Your task to perform on an android device: Open battery settings Image 0: 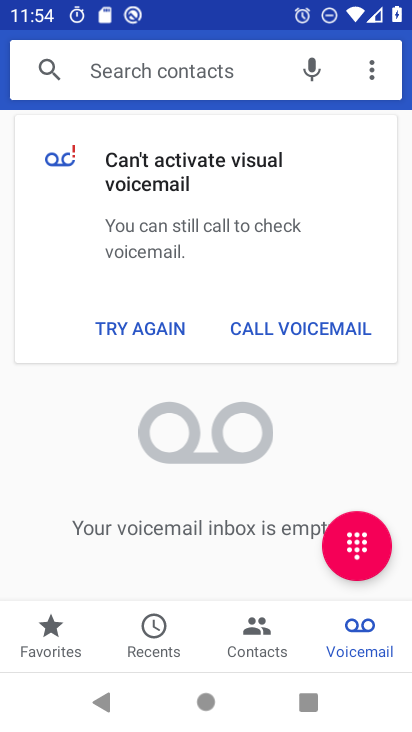
Step 0: press home button
Your task to perform on an android device: Open battery settings Image 1: 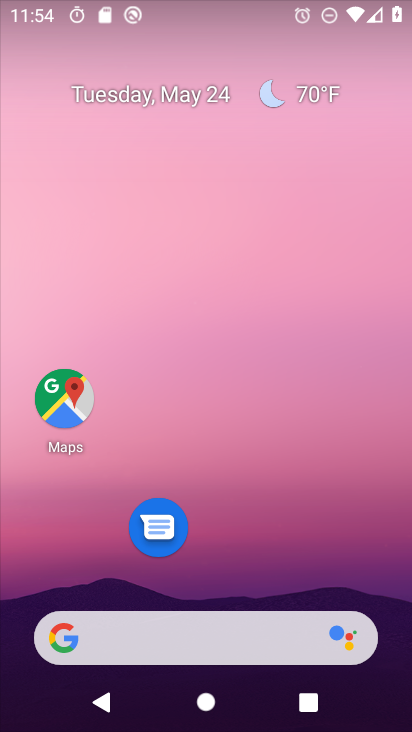
Step 1: drag from (254, 567) to (287, 55)
Your task to perform on an android device: Open battery settings Image 2: 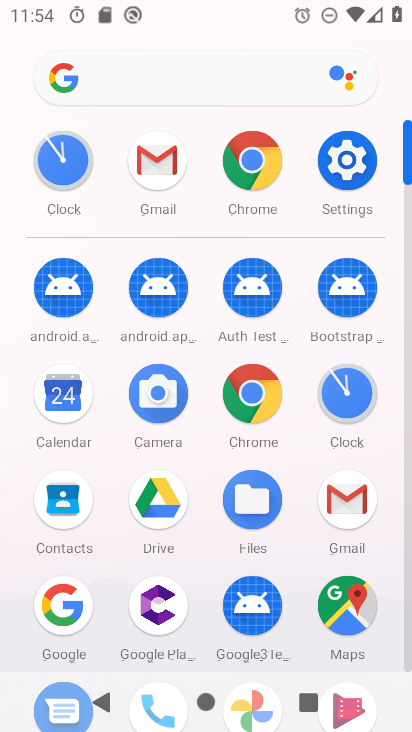
Step 2: click (354, 158)
Your task to perform on an android device: Open battery settings Image 3: 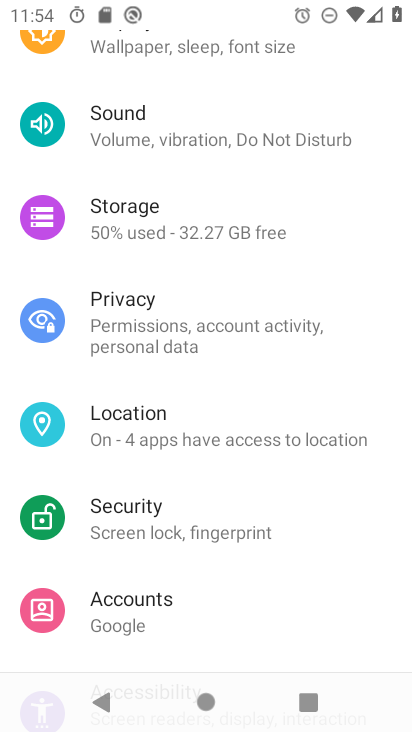
Step 3: drag from (246, 230) to (263, 498)
Your task to perform on an android device: Open battery settings Image 4: 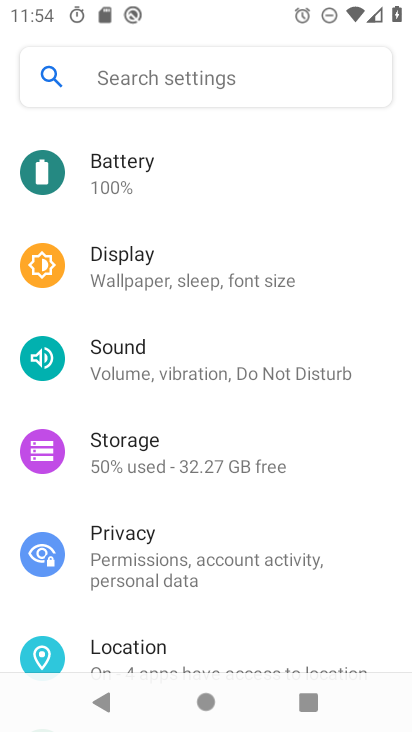
Step 4: click (138, 186)
Your task to perform on an android device: Open battery settings Image 5: 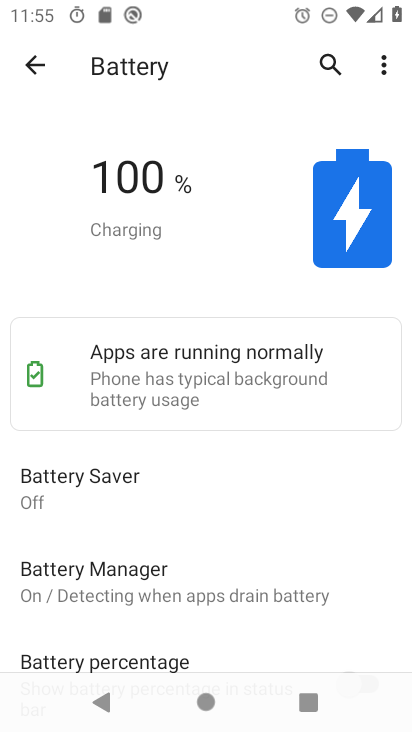
Step 5: task complete